Your task to perform on an android device: What is the news today? Image 0: 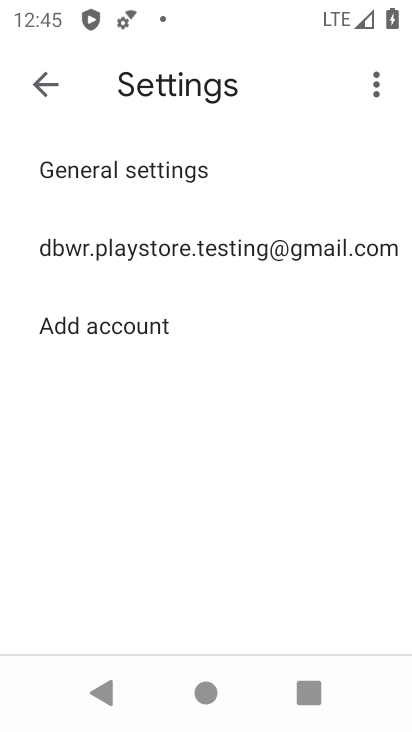
Step 0: press home button
Your task to perform on an android device: What is the news today? Image 1: 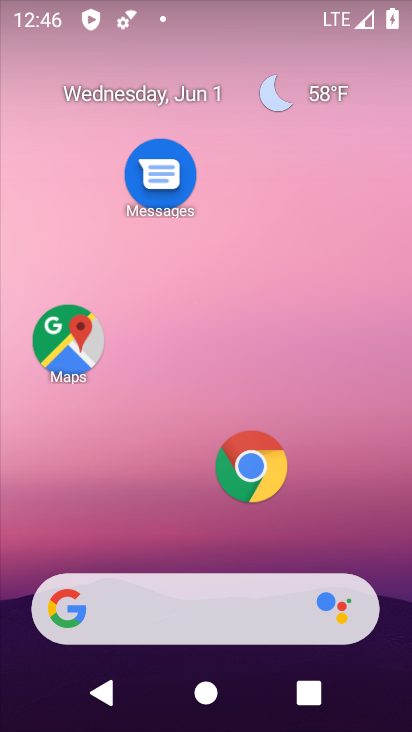
Step 1: click (207, 617)
Your task to perform on an android device: What is the news today? Image 2: 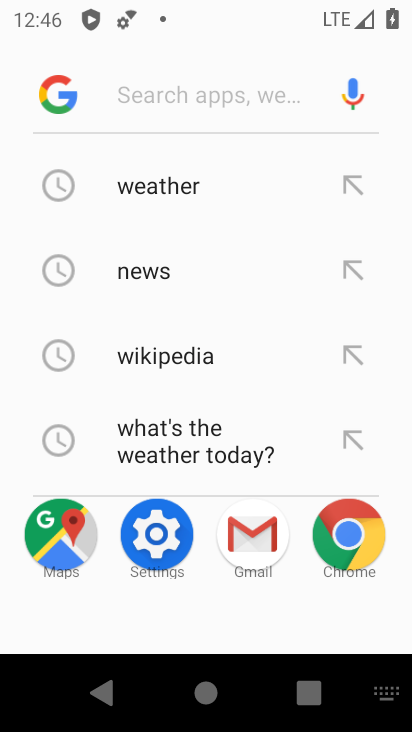
Step 2: click (154, 280)
Your task to perform on an android device: What is the news today? Image 3: 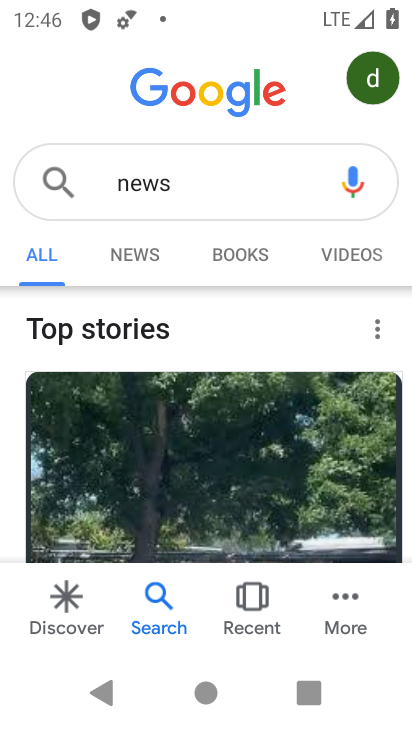
Step 3: task complete